Your task to perform on an android device: Open notification settings Image 0: 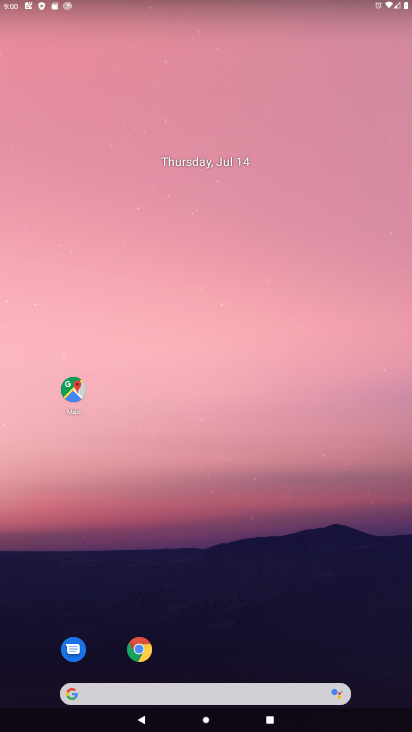
Step 0: drag from (108, 570) to (166, 131)
Your task to perform on an android device: Open notification settings Image 1: 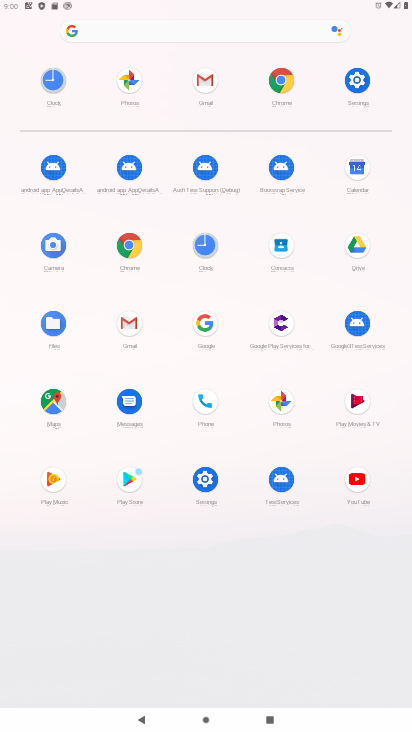
Step 1: click (363, 82)
Your task to perform on an android device: Open notification settings Image 2: 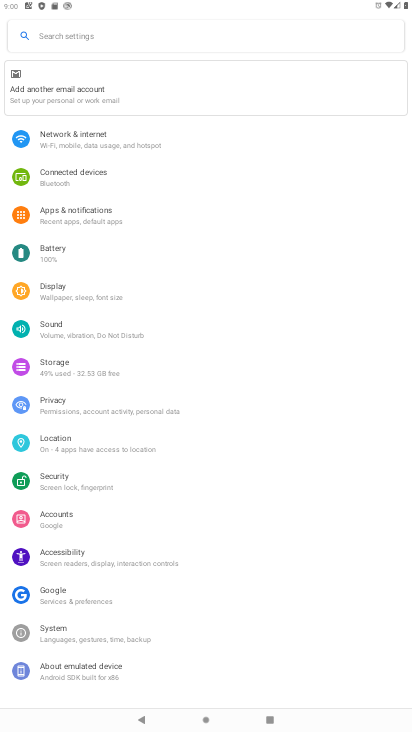
Step 2: click (118, 223)
Your task to perform on an android device: Open notification settings Image 3: 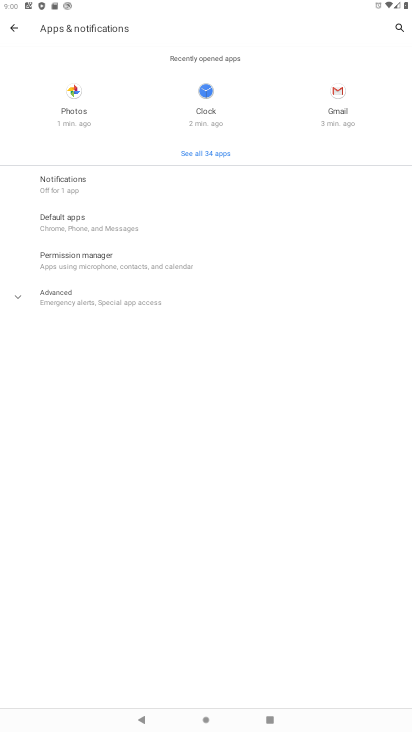
Step 3: click (68, 174)
Your task to perform on an android device: Open notification settings Image 4: 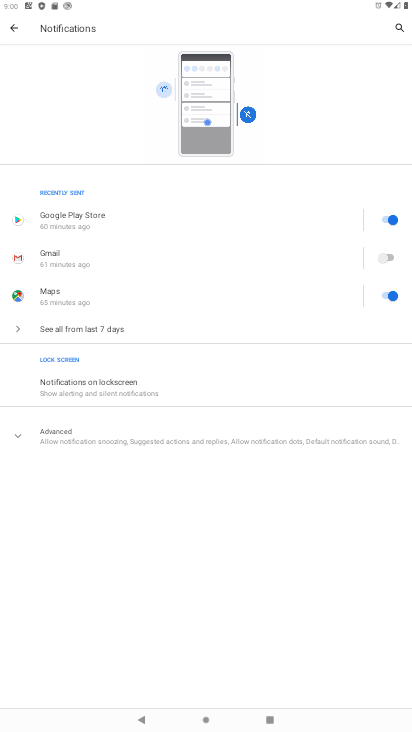
Step 4: click (395, 297)
Your task to perform on an android device: Open notification settings Image 5: 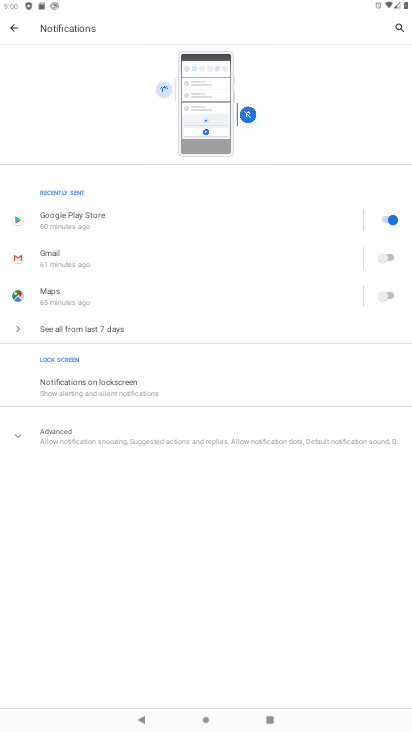
Step 5: task complete